Your task to perform on an android device: open chrome privacy settings Image 0: 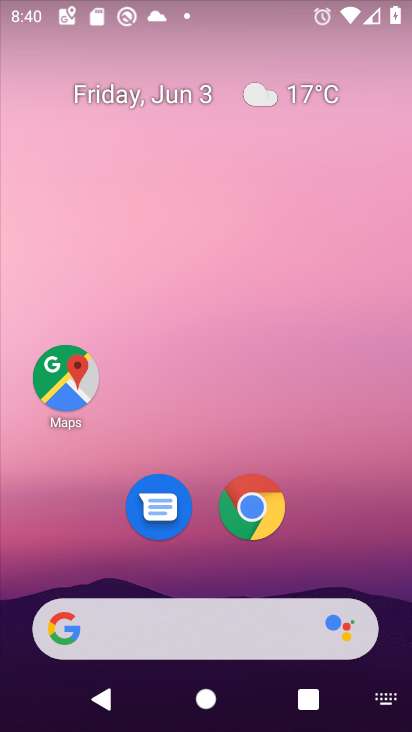
Step 0: click (251, 507)
Your task to perform on an android device: open chrome privacy settings Image 1: 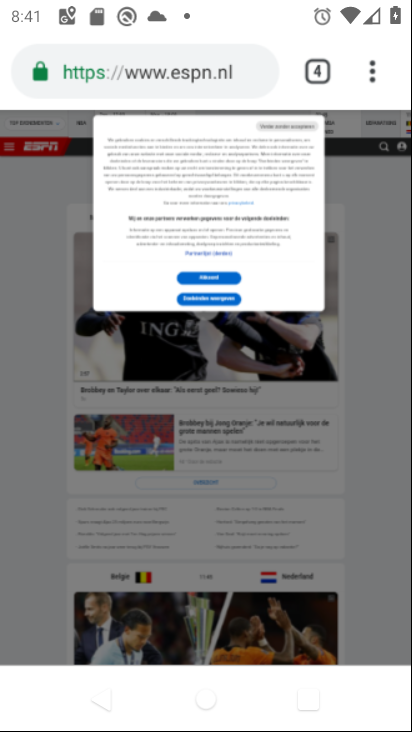
Step 1: click (374, 69)
Your task to perform on an android device: open chrome privacy settings Image 2: 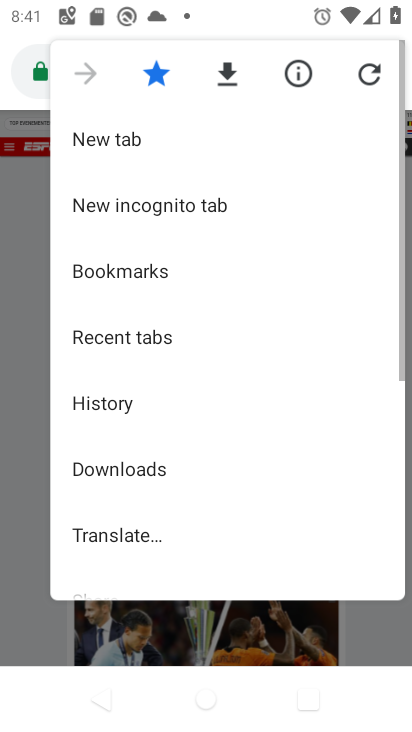
Step 2: drag from (241, 514) to (213, 74)
Your task to perform on an android device: open chrome privacy settings Image 3: 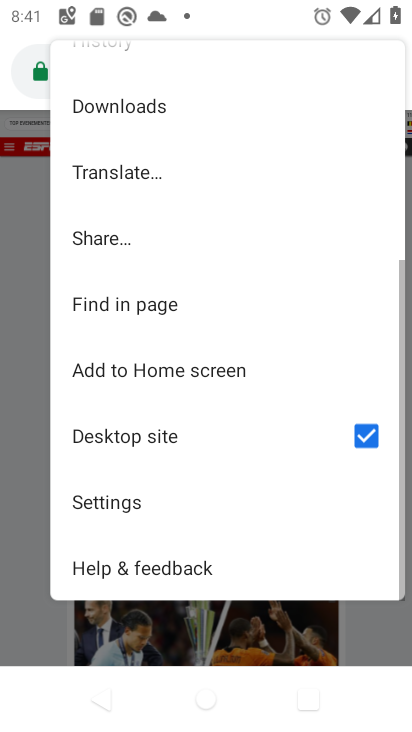
Step 3: click (176, 499)
Your task to perform on an android device: open chrome privacy settings Image 4: 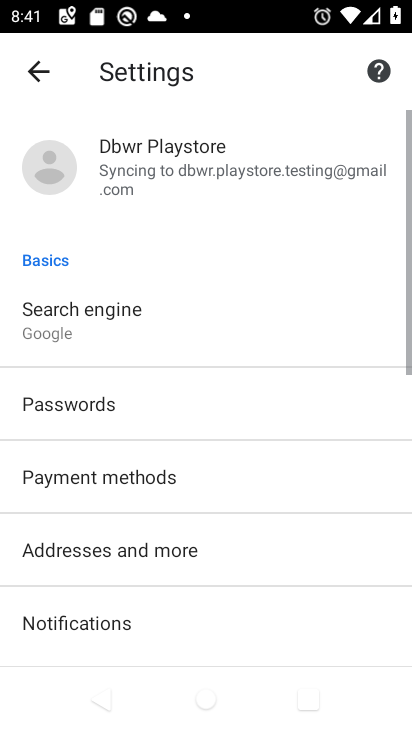
Step 4: drag from (194, 582) to (203, 234)
Your task to perform on an android device: open chrome privacy settings Image 5: 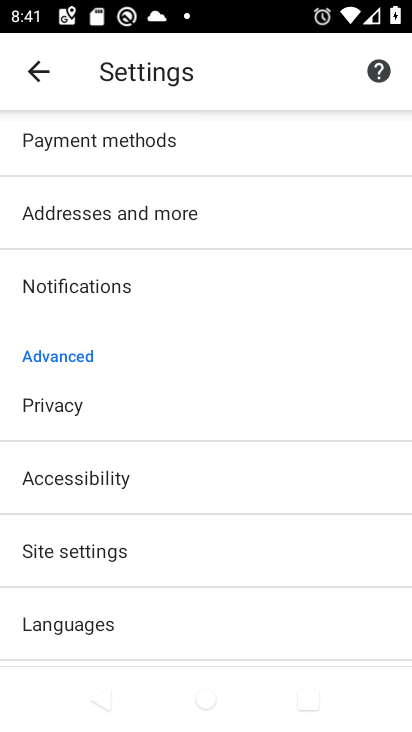
Step 5: click (164, 406)
Your task to perform on an android device: open chrome privacy settings Image 6: 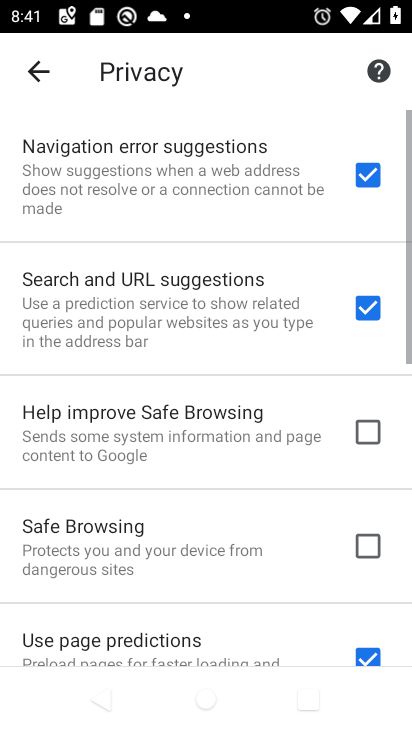
Step 6: task complete